Your task to perform on an android device: turn off location Image 0: 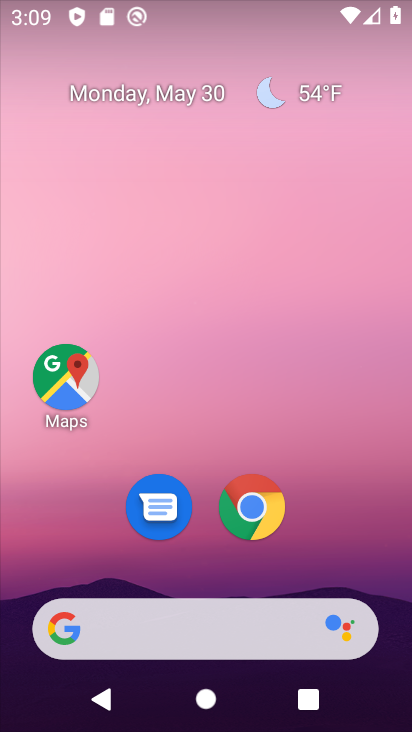
Step 0: drag from (83, 582) to (162, 142)
Your task to perform on an android device: turn off location Image 1: 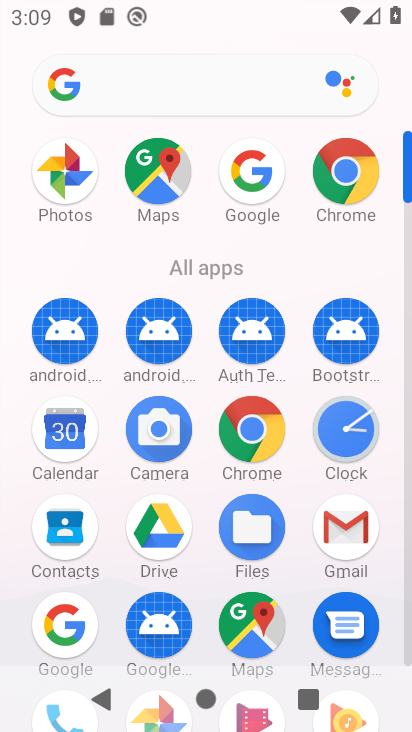
Step 1: drag from (181, 595) to (232, 334)
Your task to perform on an android device: turn off location Image 2: 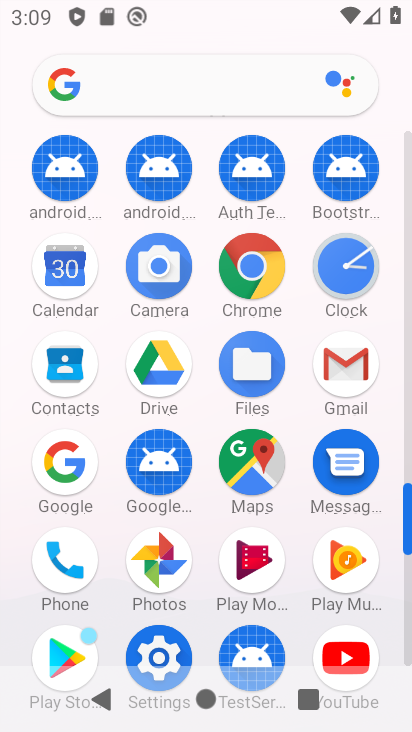
Step 2: click (145, 667)
Your task to perform on an android device: turn off location Image 3: 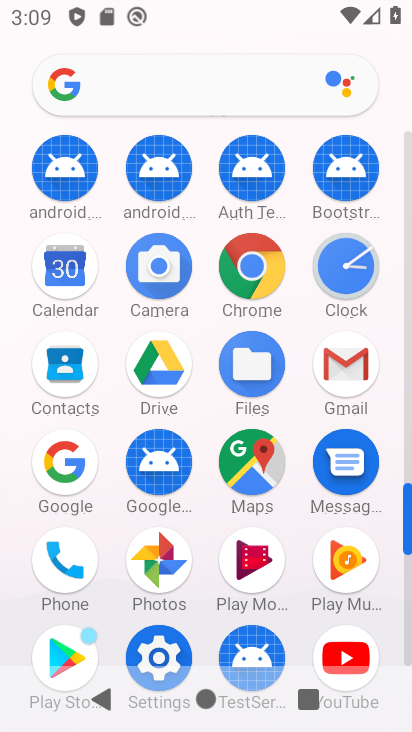
Step 3: click (149, 631)
Your task to perform on an android device: turn off location Image 4: 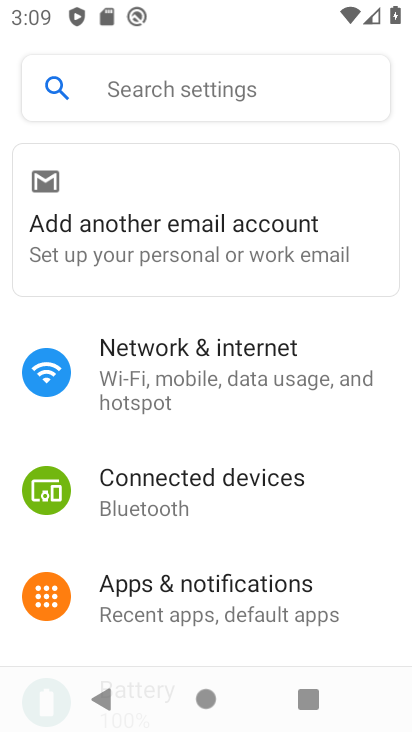
Step 4: drag from (189, 612) to (287, 105)
Your task to perform on an android device: turn off location Image 5: 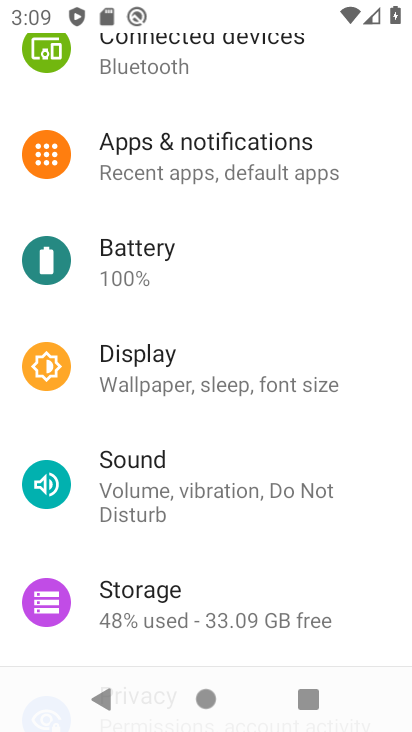
Step 5: drag from (239, 553) to (319, 139)
Your task to perform on an android device: turn off location Image 6: 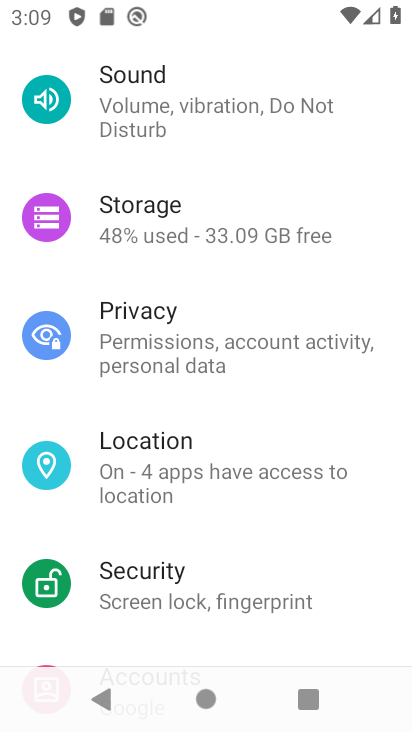
Step 6: click (176, 486)
Your task to perform on an android device: turn off location Image 7: 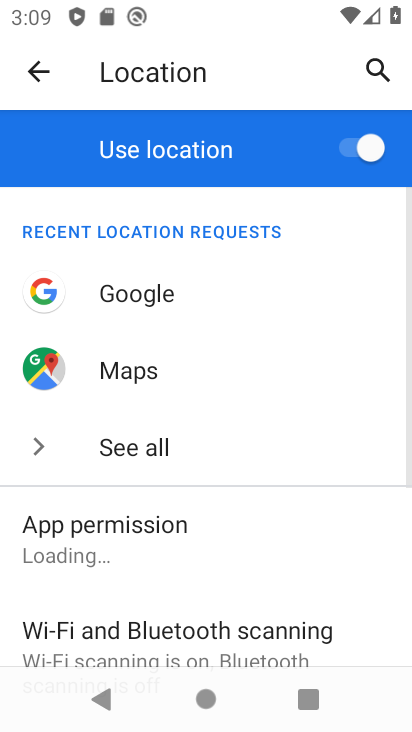
Step 7: click (355, 147)
Your task to perform on an android device: turn off location Image 8: 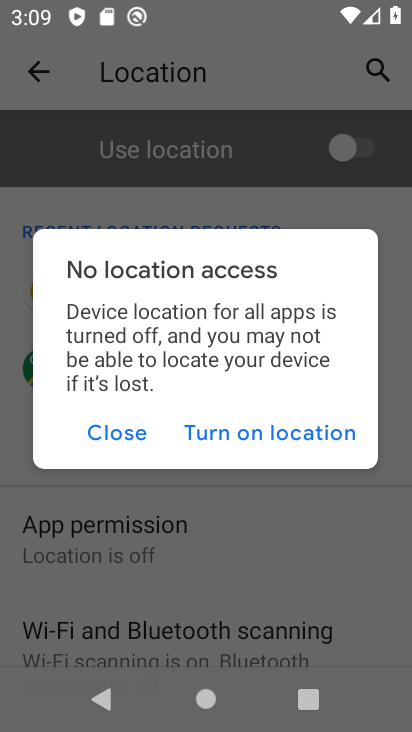
Step 8: click (139, 449)
Your task to perform on an android device: turn off location Image 9: 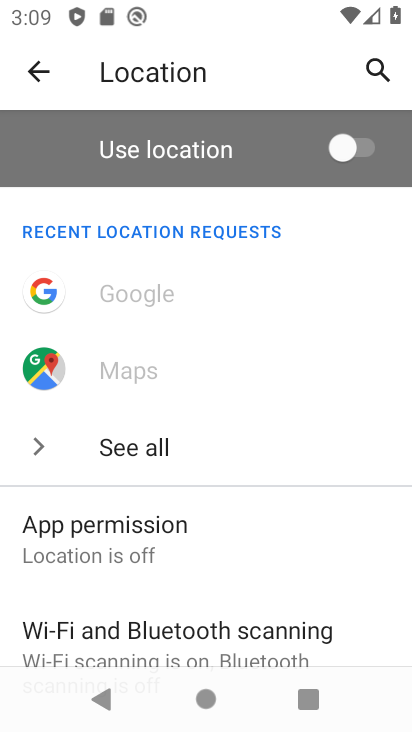
Step 9: task complete